Your task to perform on an android device: Search for top rated seafood restaurants on Google Maps Image 0: 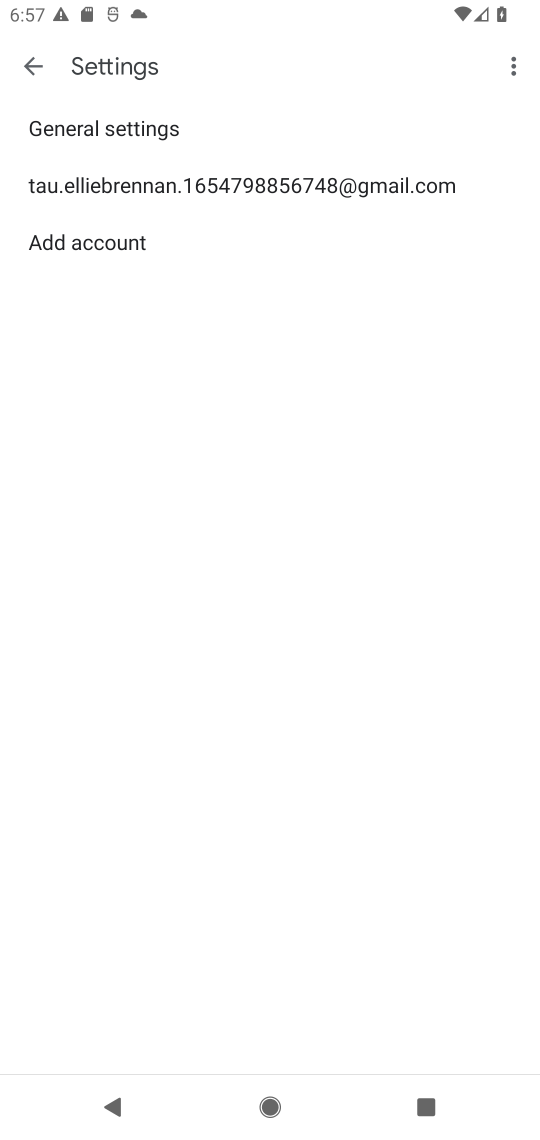
Step 0: press home button
Your task to perform on an android device: Search for top rated seafood restaurants on Google Maps Image 1: 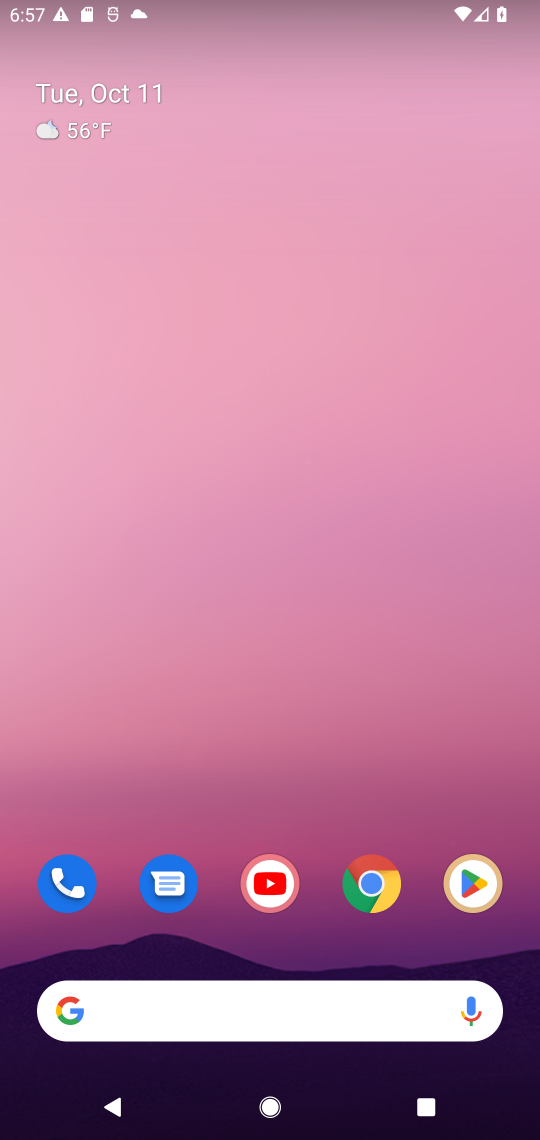
Step 1: drag from (381, 352) to (361, 88)
Your task to perform on an android device: Search for top rated seafood restaurants on Google Maps Image 2: 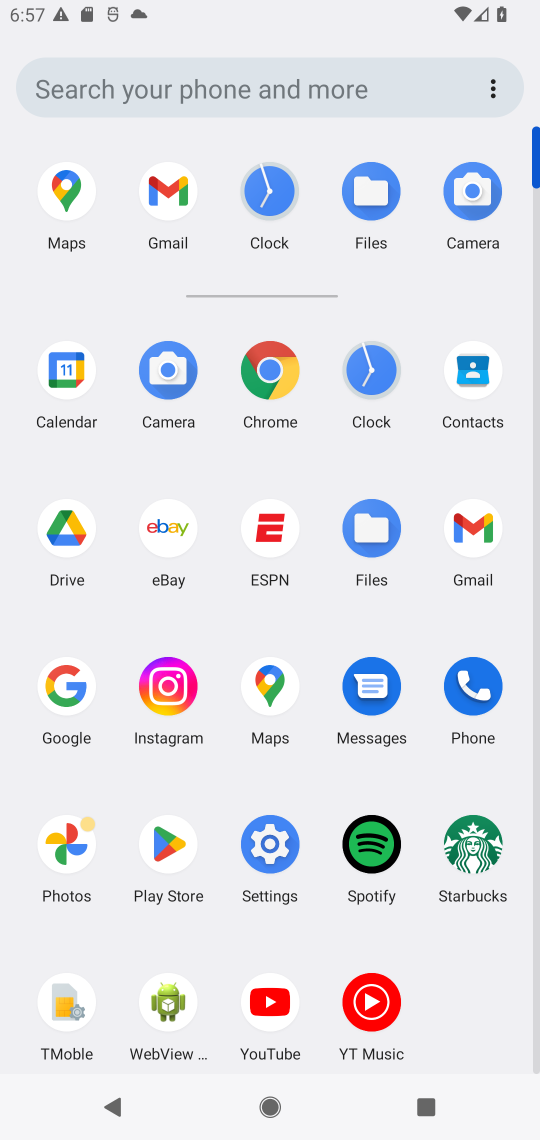
Step 2: click (262, 678)
Your task to perform on an android device: Search for top rated seafood restaurants on Google Maps Image 3: 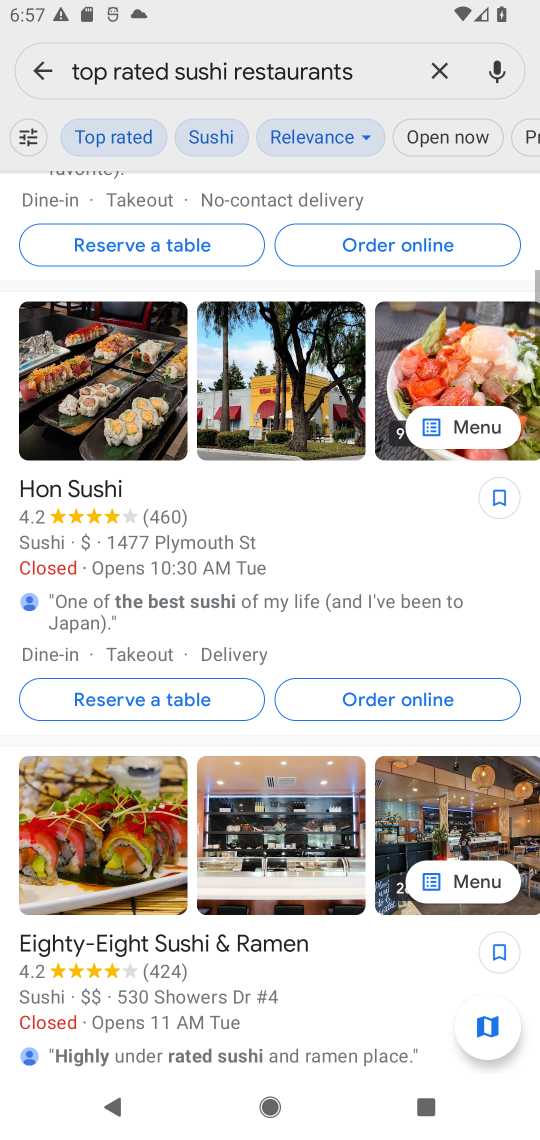
Step 3: click (279, 55)
Your task to perform on an android device: Search for top rated seafood restaurants on Google Maps Image 4: 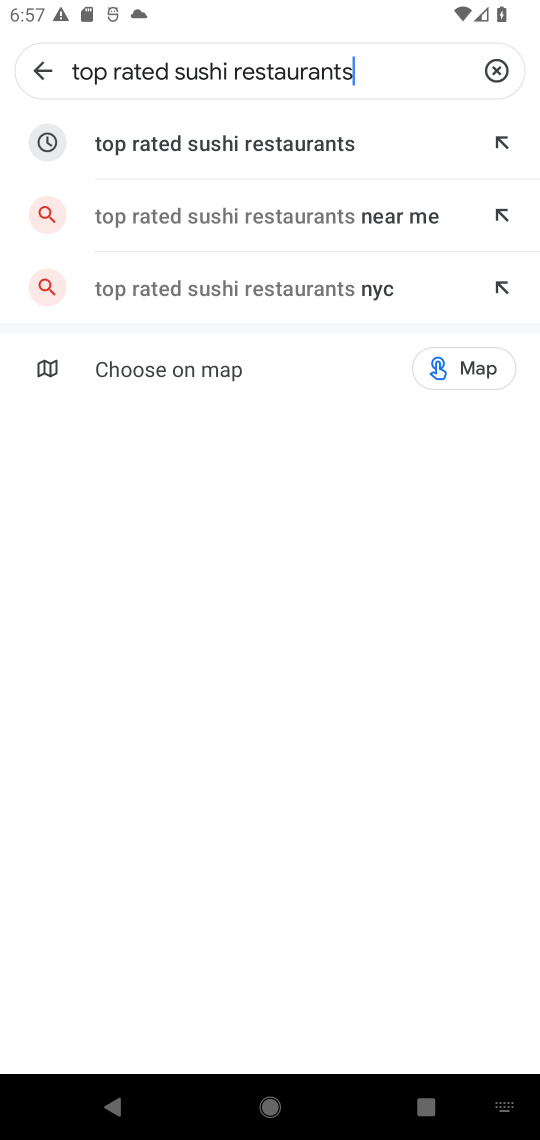
Step 4: click (505, 75)
Your task to perform on an android device: Search for top rated seafood restaurants on Google Maps Image 5: 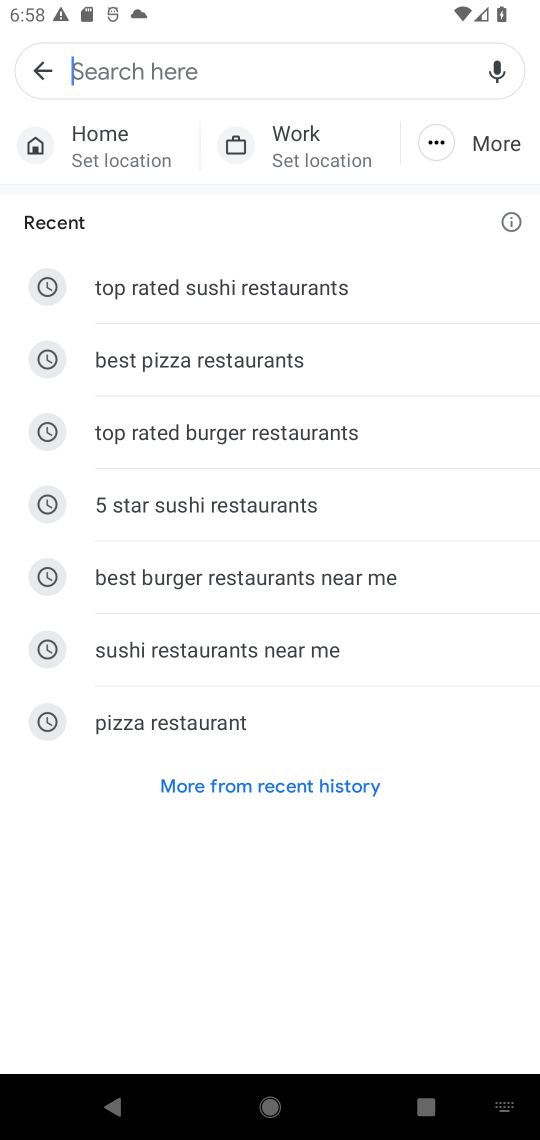
Step 5: type "top rated seafood restaurants"
Your task to perform on an android device: Search for top rated seafood restaurants on Google Maps Image 6: 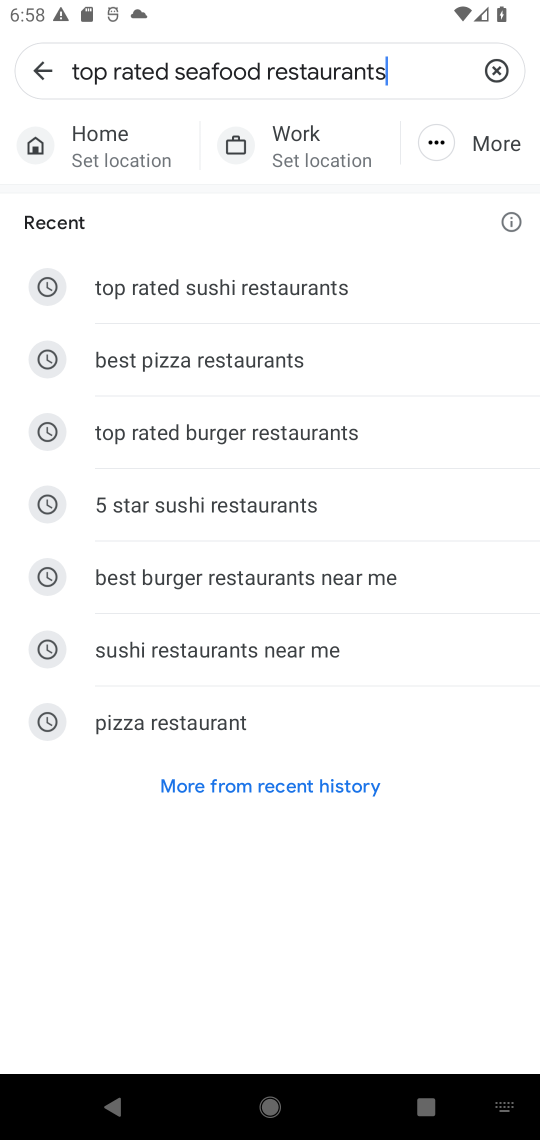
Step 6: press enter
Your task to perform on an android device: Search for top rated seafood restaurants on Google Maps Image 7: 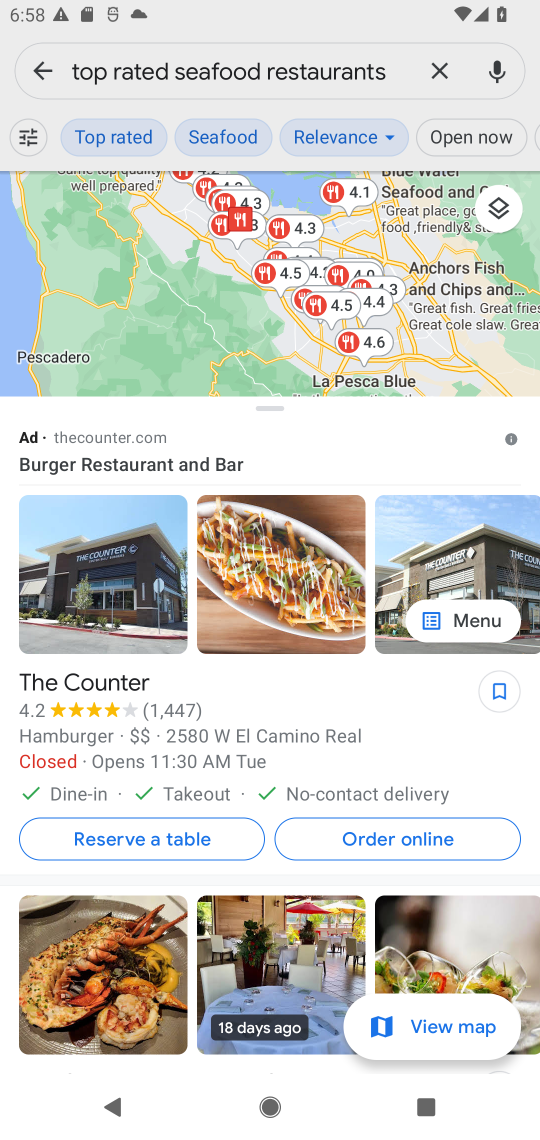
Step 7: task complete